Your task to perform on an android device: Play the last video I watched on Youtube Image 0: 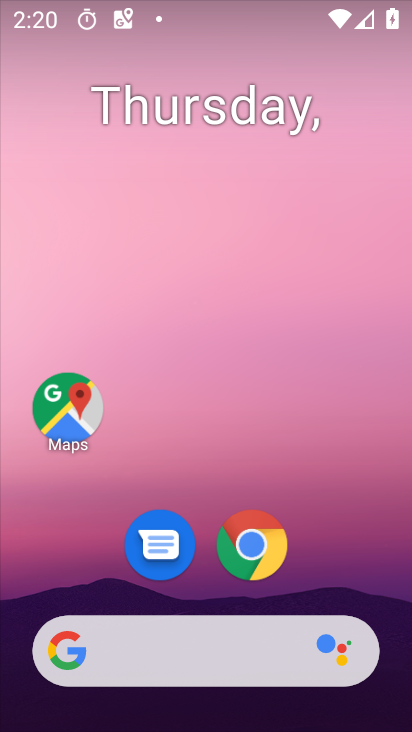
Step 0: drag from (234, 689) to (238, 52)
Your task to perform on an android device: Play the last video I watched on Youtube Image 1: 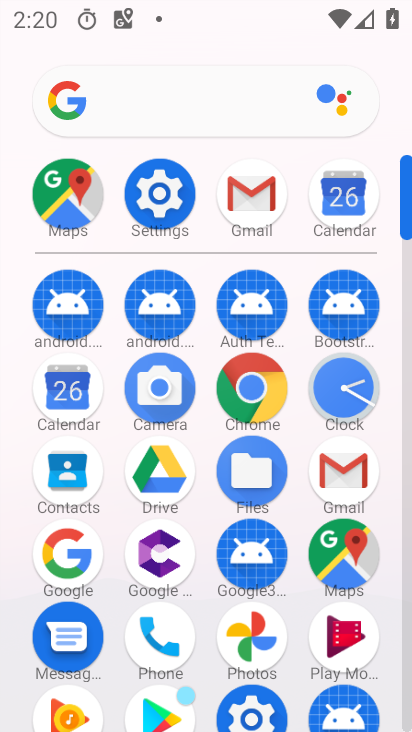
Step 1: drag from (293, 670) to (308, 242)
Your task to perform on an android device: Play the last video I watched on Youtube Image 2: 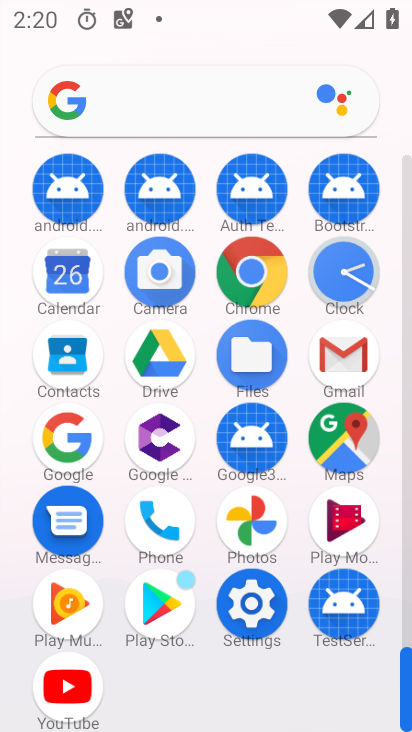
Step 2: click (62, 685)
Your task to perform on an android device: Play the last video I watched on Youtube Image 3: 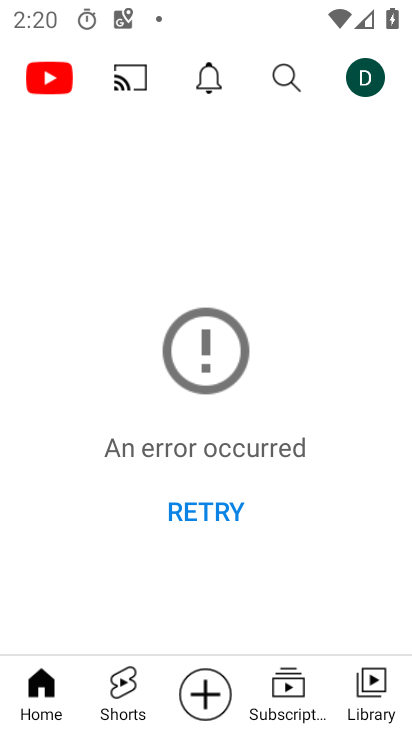
Step 3: click (359, 676)
Your task to perform on an android device: Play the last video I watched on Youtube Image 4: 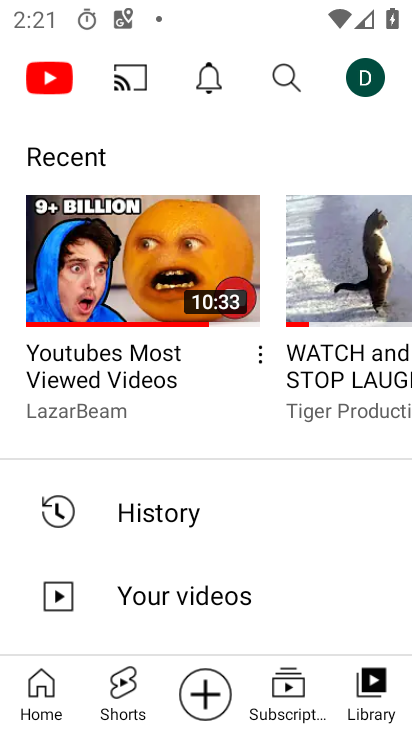
Step 4: click (65, 231)
Your task to perform on an android device: Play the last video I watched on Youtube Image 5: 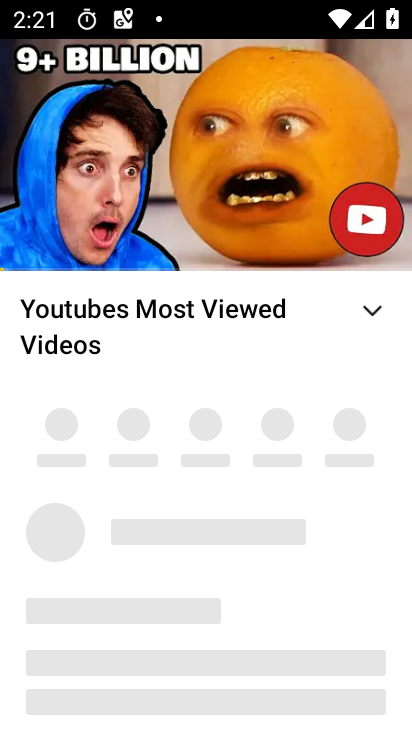
Step 5: task complete